Your task to perform on an android device: turn off data saver in the chrome app Image 0: 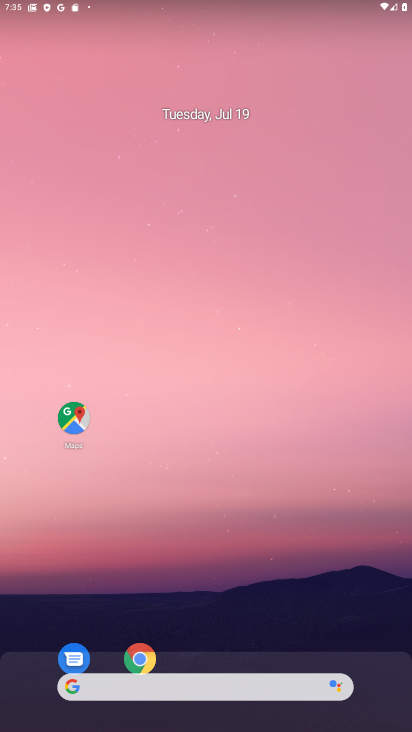
Step 0: drag from (234, 656) to (211, 14)
Your task to perform on an android device: turn off data saver in the chrome app Image 1: 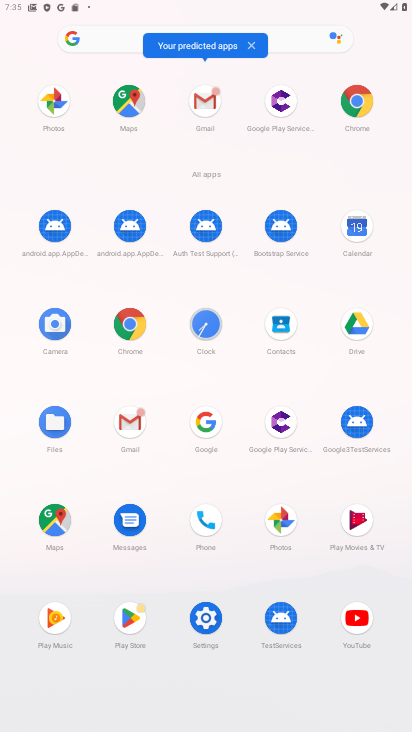
Step 1: click (135, 329)
Your task to perform on an android device: turn off data saver in the chrome app Image 2: 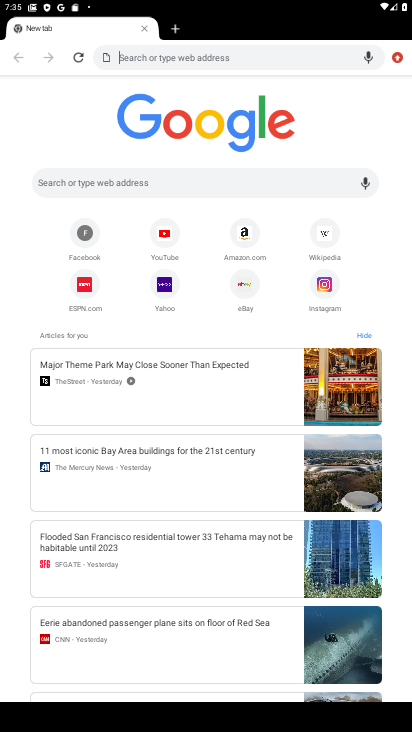
Step 2: click (396, 59)
Your task to perform on an android device: turn off data saver in the chrome app Image 3: 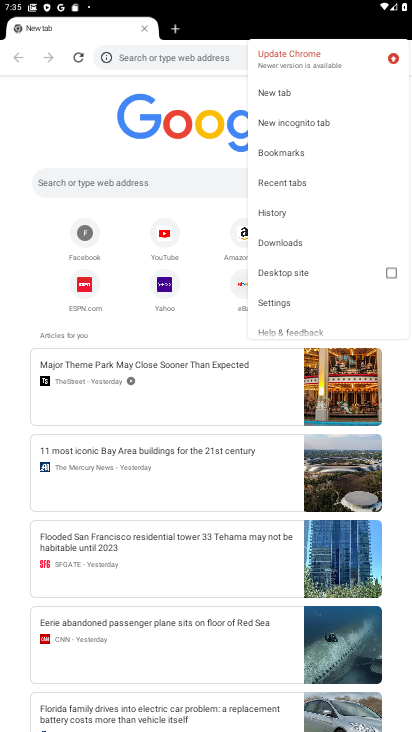
Step 3: click (267, 301)
Your task to perform on an android device: turn off data saver in the chrome app Image 4: 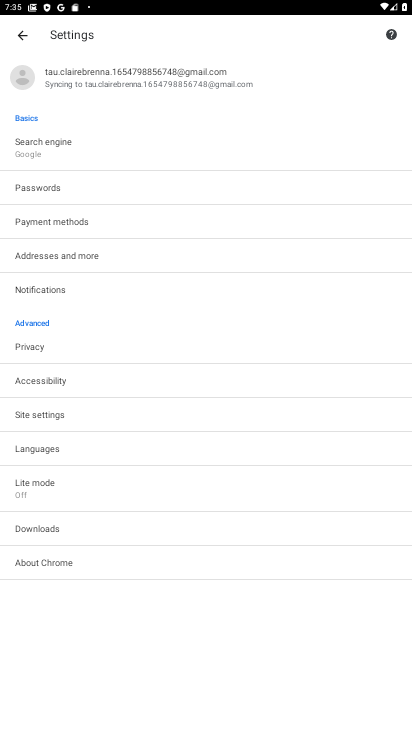
Step 4: click (43, 492)
Your task to perform on an android device: turn off data saver in the chrome app Image 5: 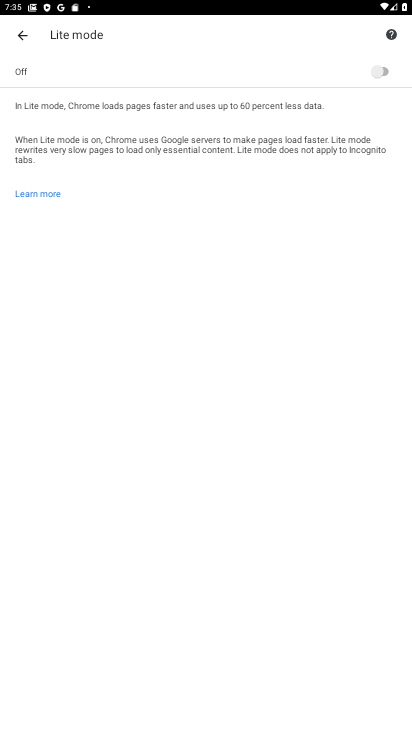
Step 5: task complete